Your task to perform on an android device: see sites visited before in the chrome app Image 0: 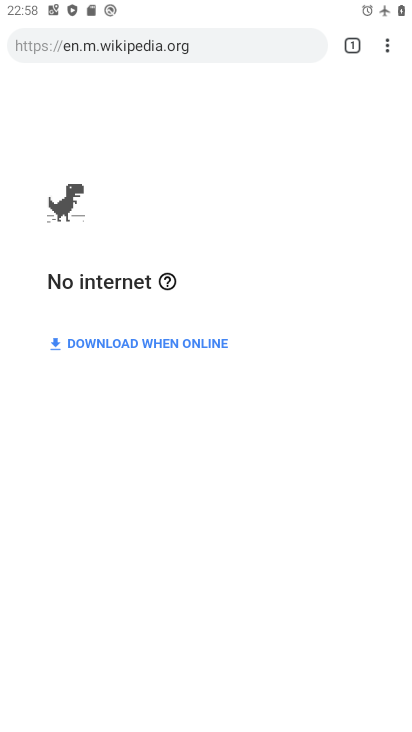
Step 0: press home button
Your task to perform on an android device: see sites visited before in the chrome app Image 1: 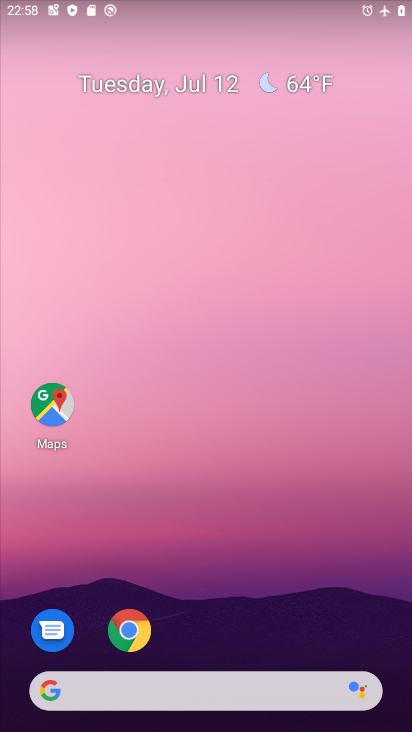
Step 1: drag from (227, 638) to (171, 58)
Your task to perform on an android device: see sites visited before in the chrome app Image 2: 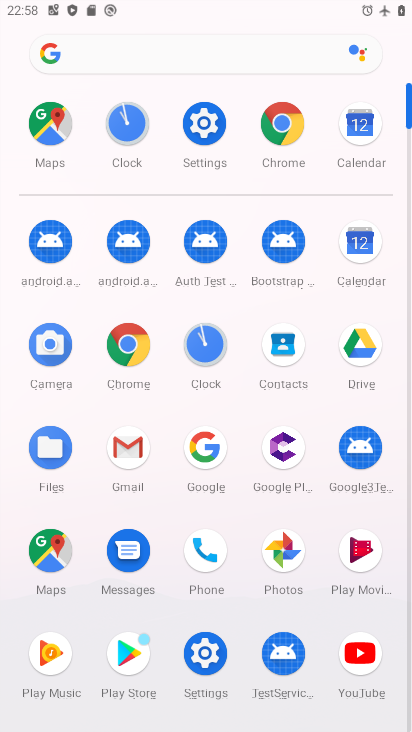
Step 2: click (265, 138)
Your task to perform on an android device: see sites visited before in the chrome app Image 3: 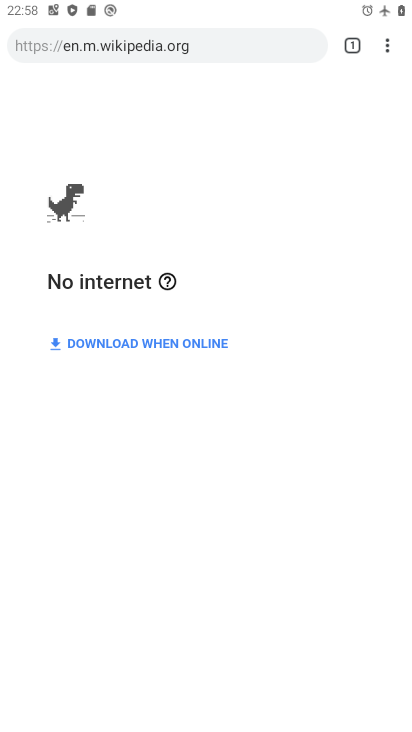
Step 3: click (390, 42)
Your task to perform on an android device: see sites visited before in the chrome app Image 4: 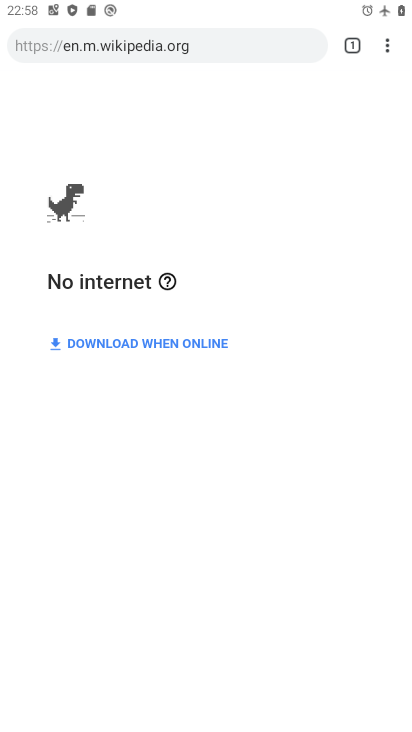
Step 4: task complete